Your task to perform on an android device: Go to wifi settings Image 0: 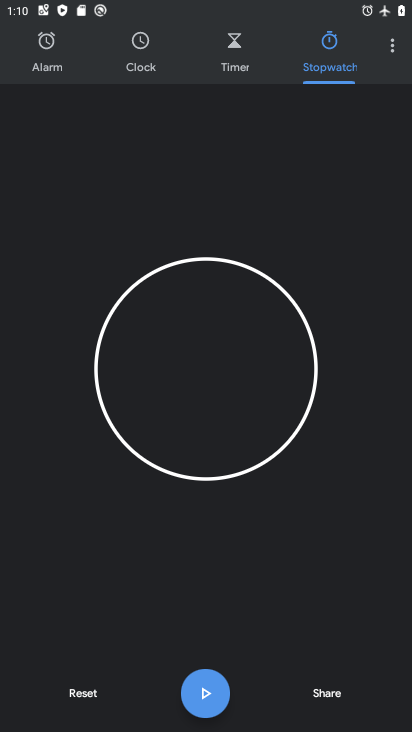
Step 0: press home button
Your task to perform on an android device: Go to wifi settings Image 1: 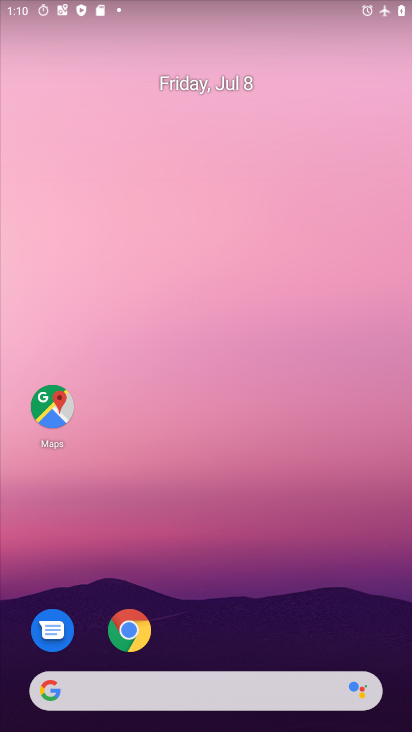
Step 1: drag from (243, 632) to (266, 167)
Your task to perform on an android device: Go to wifi settings Image 2: 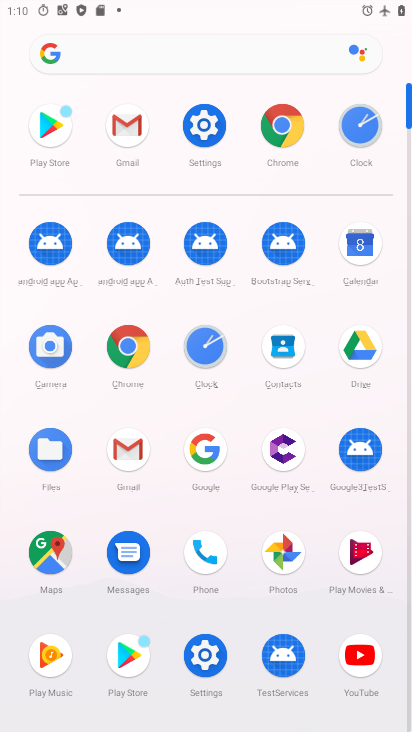
Step 2: click (210, 134)
Your task to perform on an android device: Go to wifi settings Image 3: 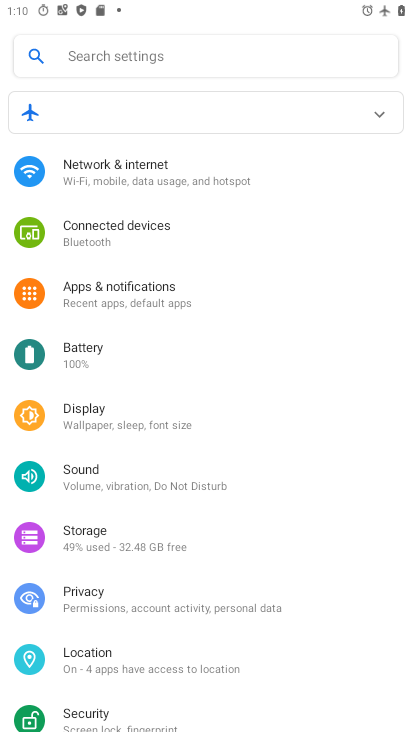
Step 3: click (198, 174)
Your task to perform on an android device: Go to wifi settings Image 4: 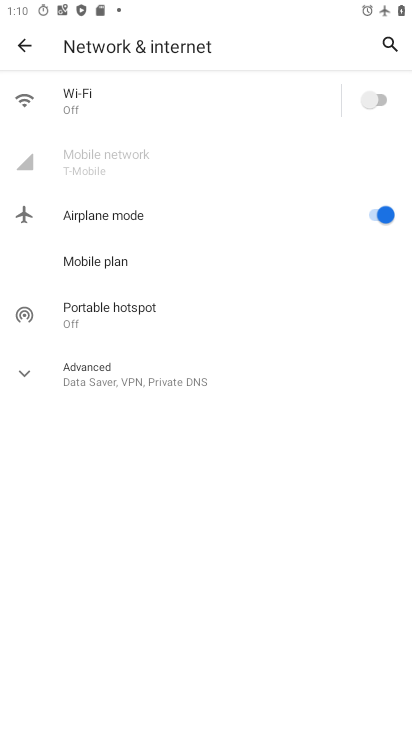
Step 4: click (75, 105)
Your task to perform on an android device: Go to wifi settings Image 5: 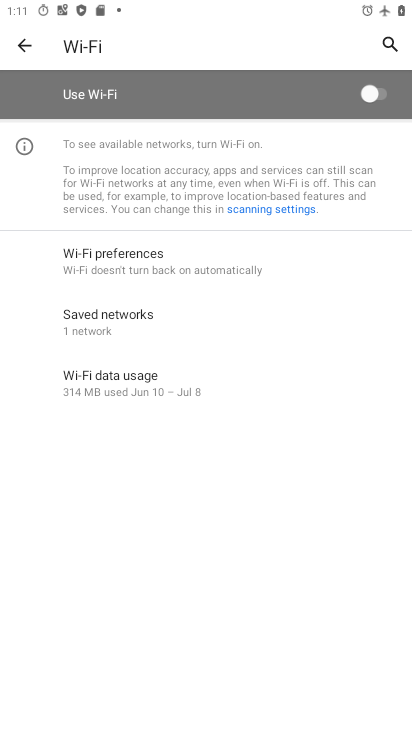
Step 5: task complete